Your task to perform on an android device: set the timer Image 0: 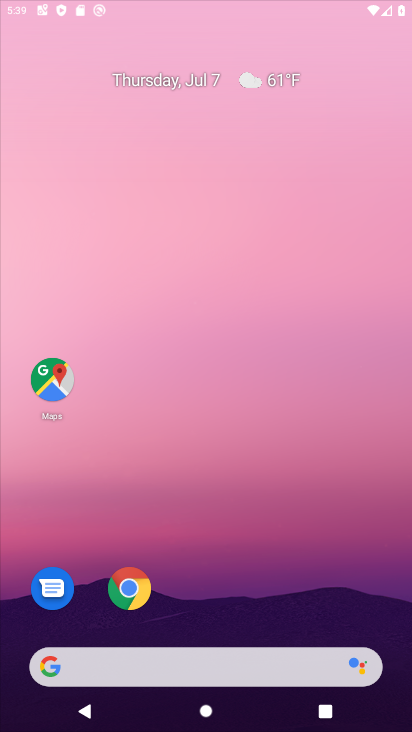
Step 0: drag from (219, 597) to (266, 0)
Your task to perform on an android device: set the timer Image 1: 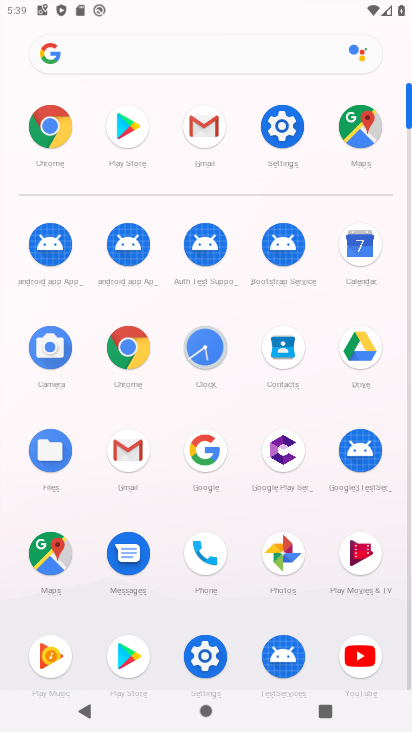
Step 1: click (210, 364)
Your task to perform on an android device: set the timer Image 2: 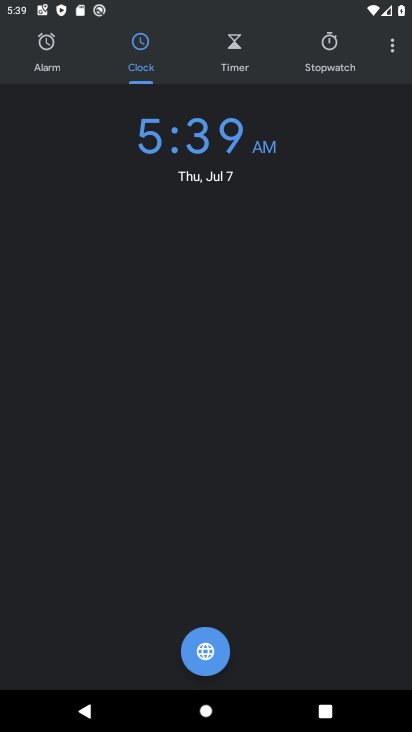
Step 2: click (238, 63)
Your task to perform on an android device: set the timer Image 3: 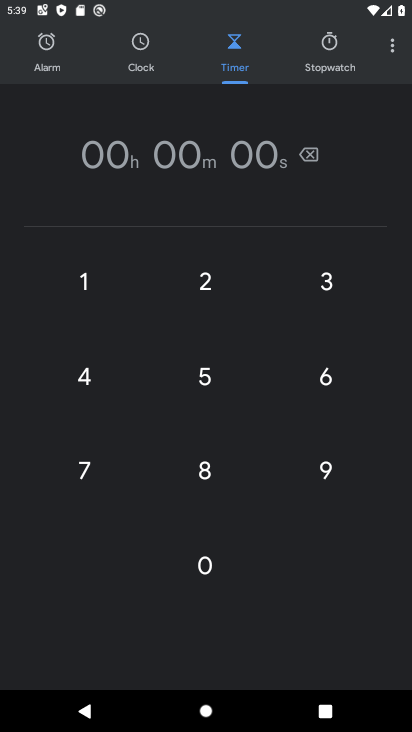
Step 3: click (169, 273)
Your task to perform on an android device: set the timer Image 4: 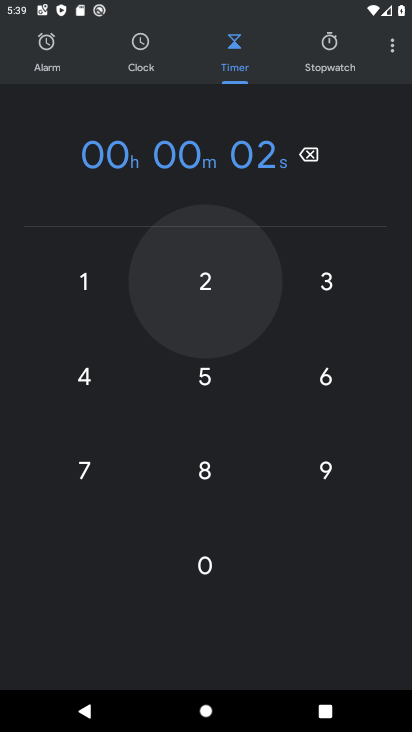
Step 4: click (317, 274)
Your task to perform on an android device: set the timer Image 5: 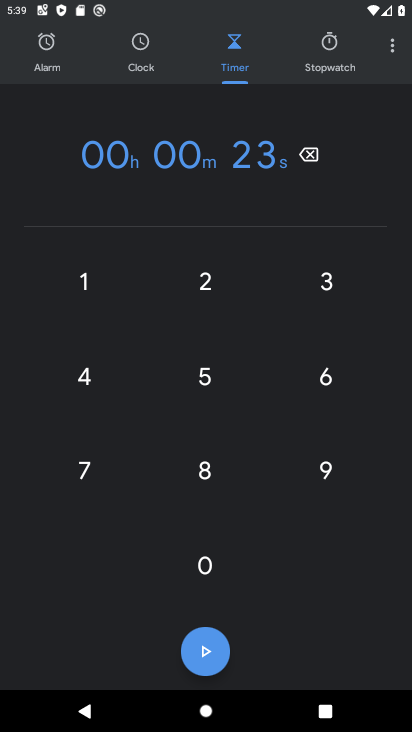
Step 5: click (91, 374)
Your task to perform on an android device: set the timer Image 6: 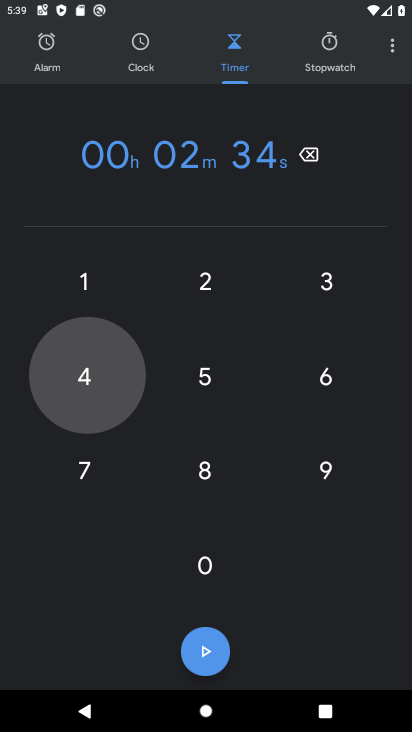
Step 6: click (177, 387)
Your task to perform on an android device: set the timer Image 7: 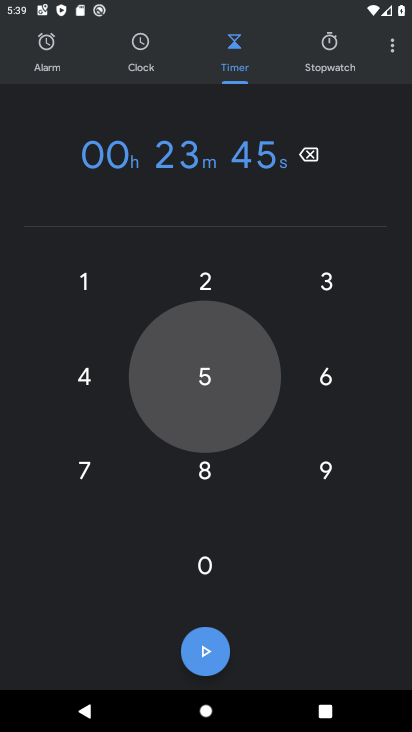
Step 7: click (306, 400)
Your task to perform on an android device: set the timer Image 8: 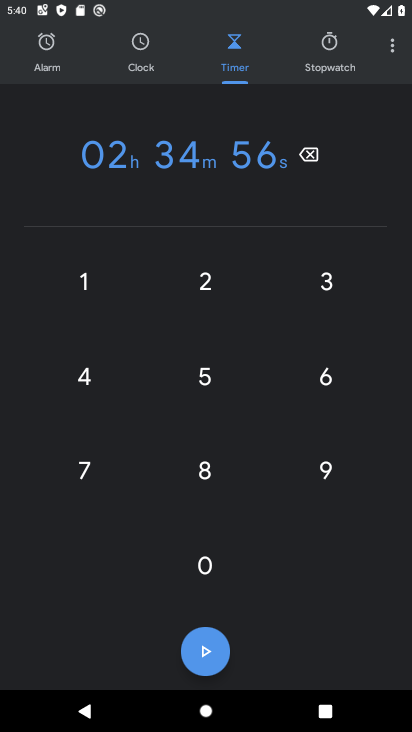
Step 8: task complete